Your task to perform on an android device: toggle priority inbox in the gmail app Image 0: 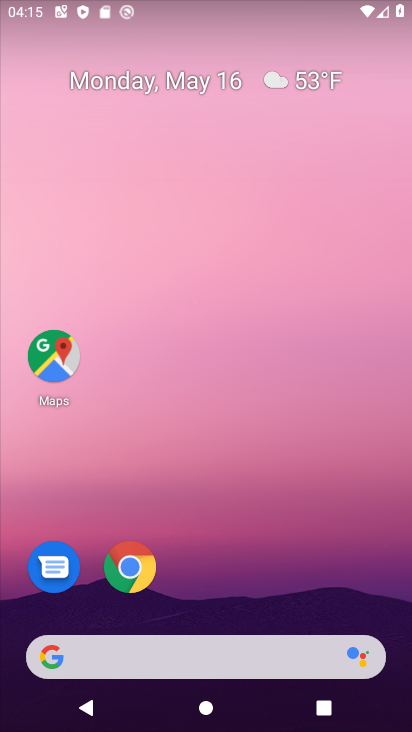
Step 0: drag from (155, 718) to (203, 75)
Your task to perform on an android device: toggle priority inbox in the gmail app Image 1: 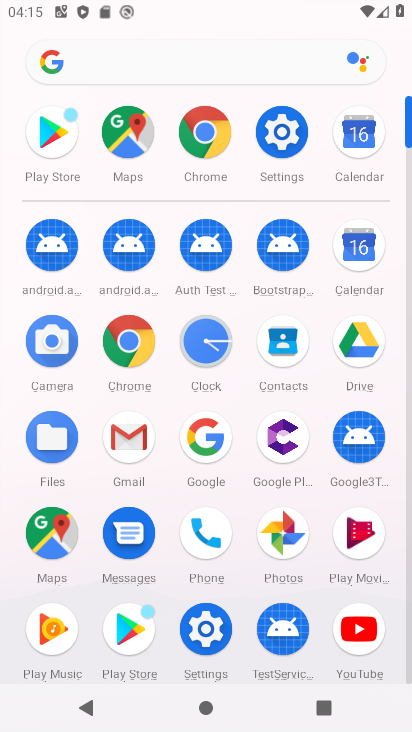
Step 1: click (134, 431)
Your task to perform on an android device: toggle priority inbox in the gmail app Image 2: 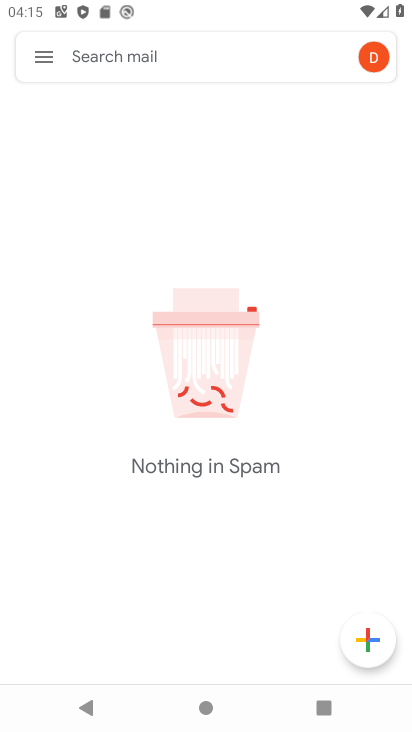
Step 2: click (42, 56)
Your task to perform on an android device: toggle priority inbox in the gmail app Image 3: 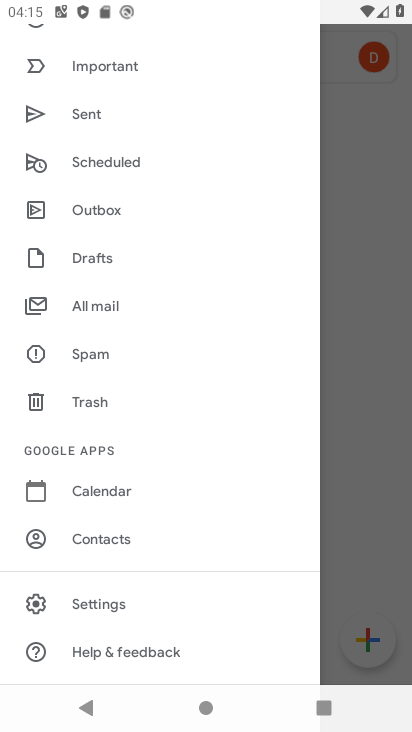
Step 3: click (143, 593)
Your task to perform on an android device: toggle priority inbox in the gmail app Image 4: 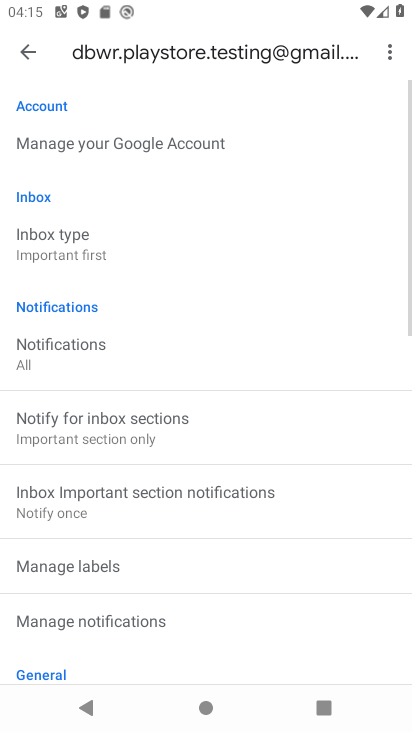
Step 4: click (83, 221)
Your task to perform on an android device: toggle priority inbox in the gmail app Image 5: 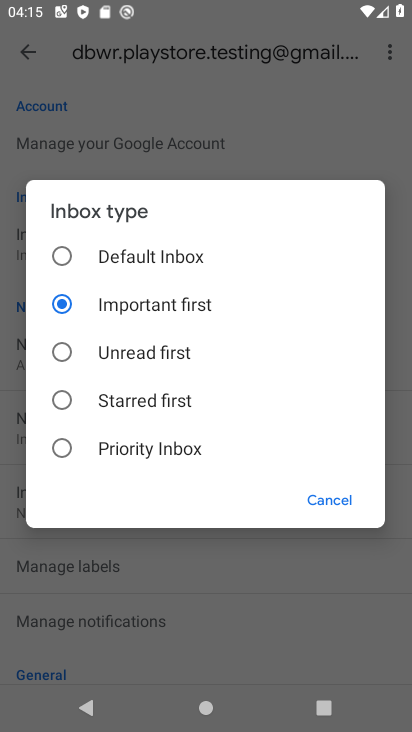
Step 5: click (62, 451)
Your task to perform on an android device: toggle priority inbox in the gmail app Image 6: 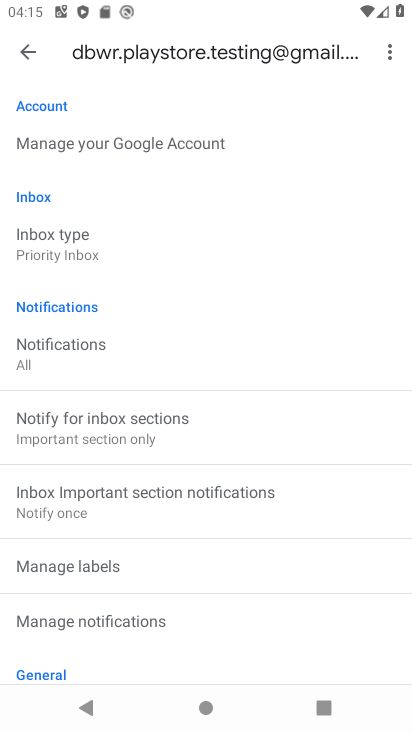
Step 6: task complete